Your task to perform on an android device: Open the phone app and click the voicemail tab. Image 0: 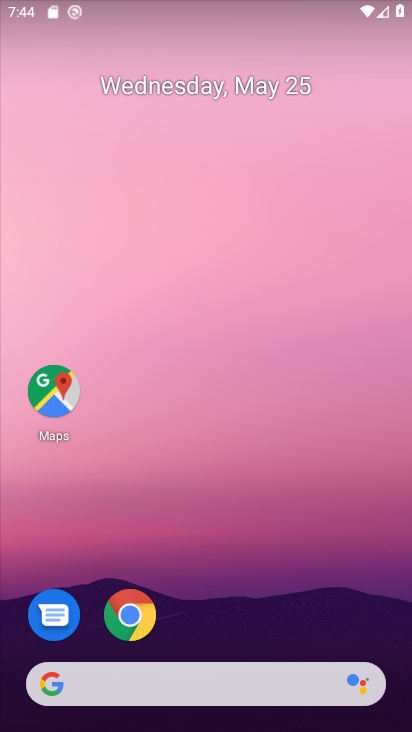
Step 0: drag from (204, 567) to (191, 0)
Your task to perform on an android device: Open the phone app and click the voicemail tab. Image 1: 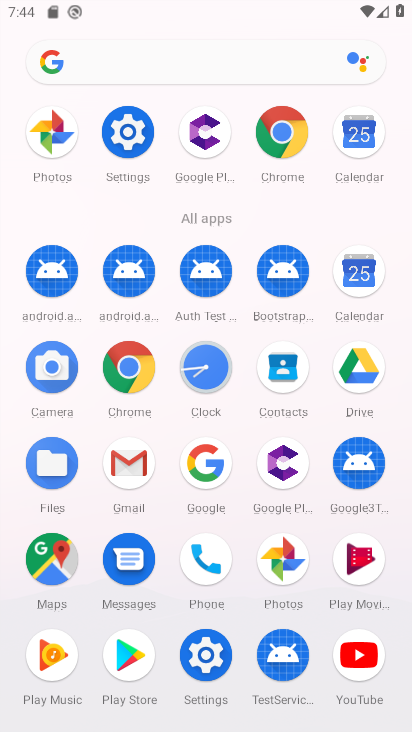
Step 1: drag from (11, 589) to (7, 289)
Your task to perform on an android device: Open the phone app and click the voicemail tab. Image 2: 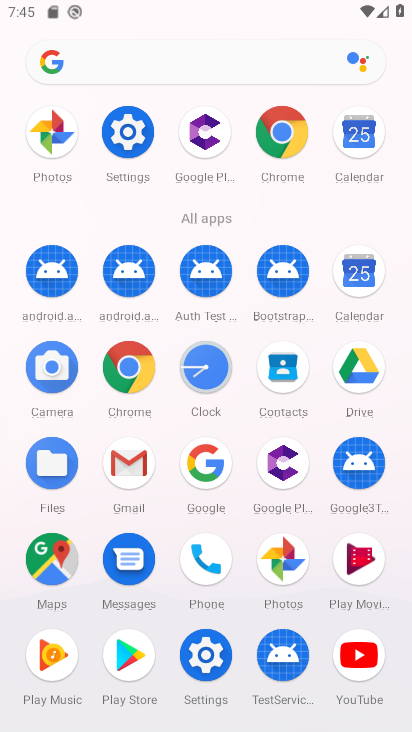
Step 2: click (204, 558)
Your task to perform on an android device: Open the phone app and click the voicemail tab. Image 3: 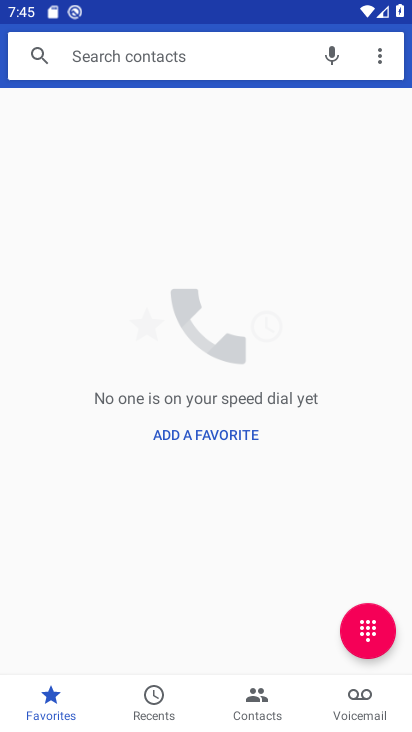
Step 3: click (362, 686)
Your task to perform on an android device: Open the phone app and click the voicemail tab. Image 4: 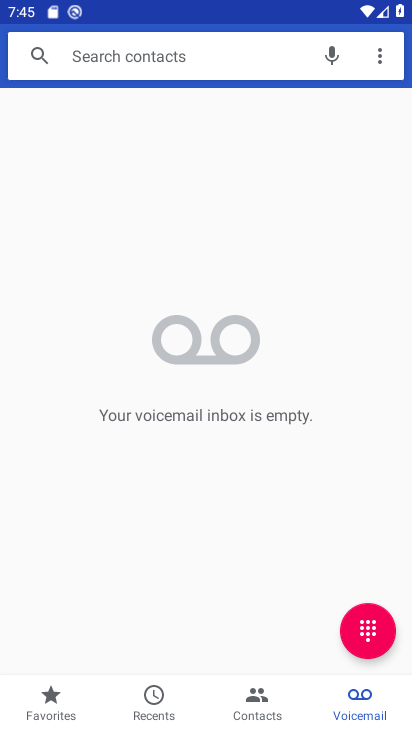
Step 4: task complete